Your task to perform on an android device: Turn off the flashlight Image 0: 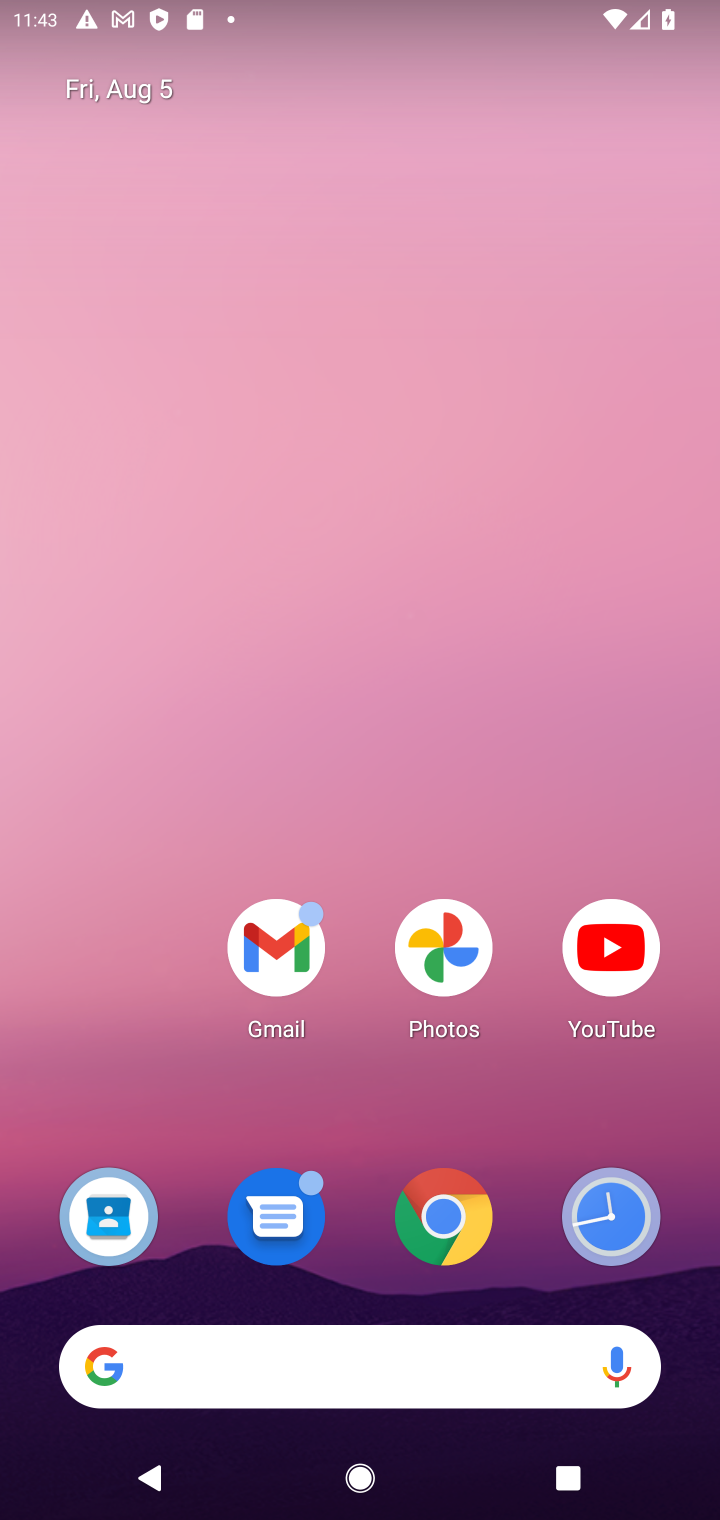
Step 0: drag from (339, 17) to (517, 913)
Your task to perform on an android device: Turn off the flashlight Image 1: 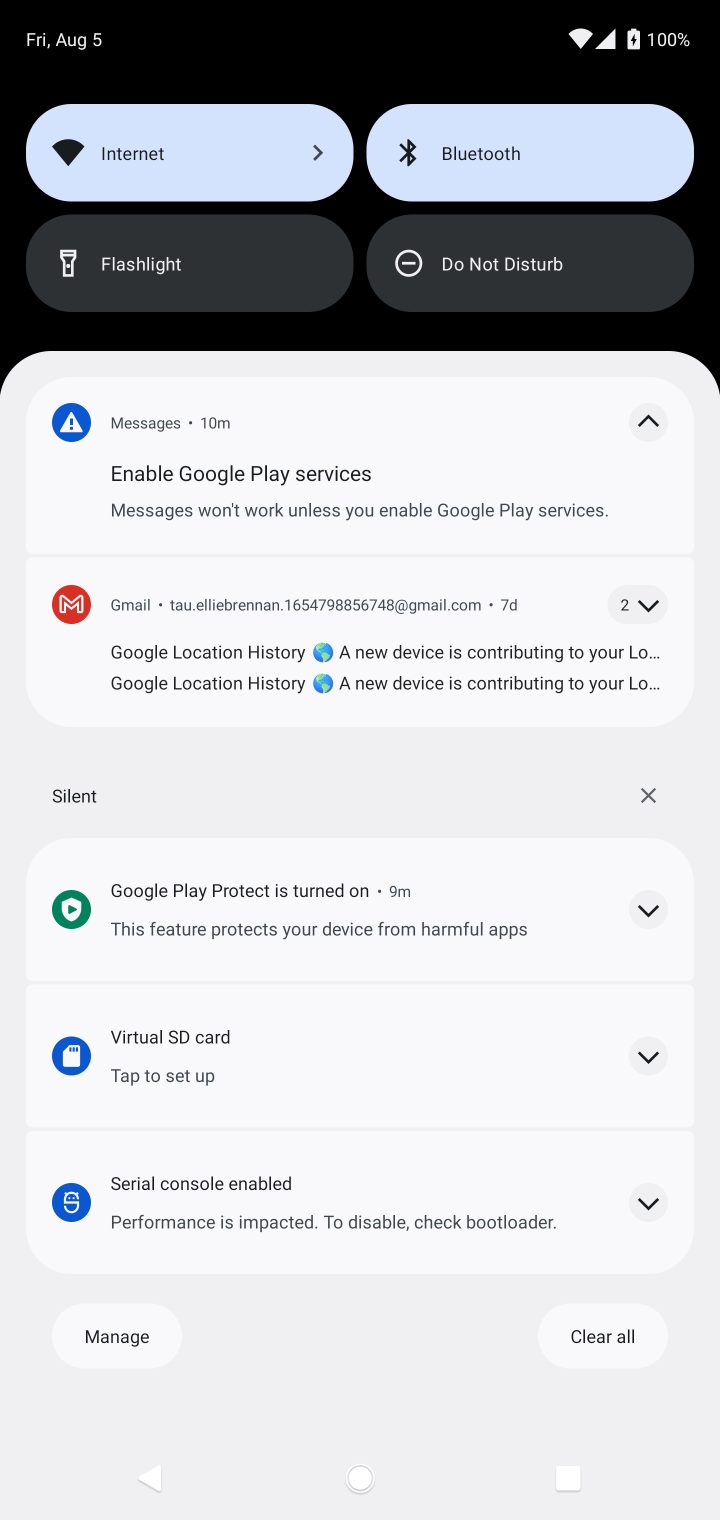
Step 1: task complete